Your task to perform on an android device: uninstall "Google Calendar" Image 0: 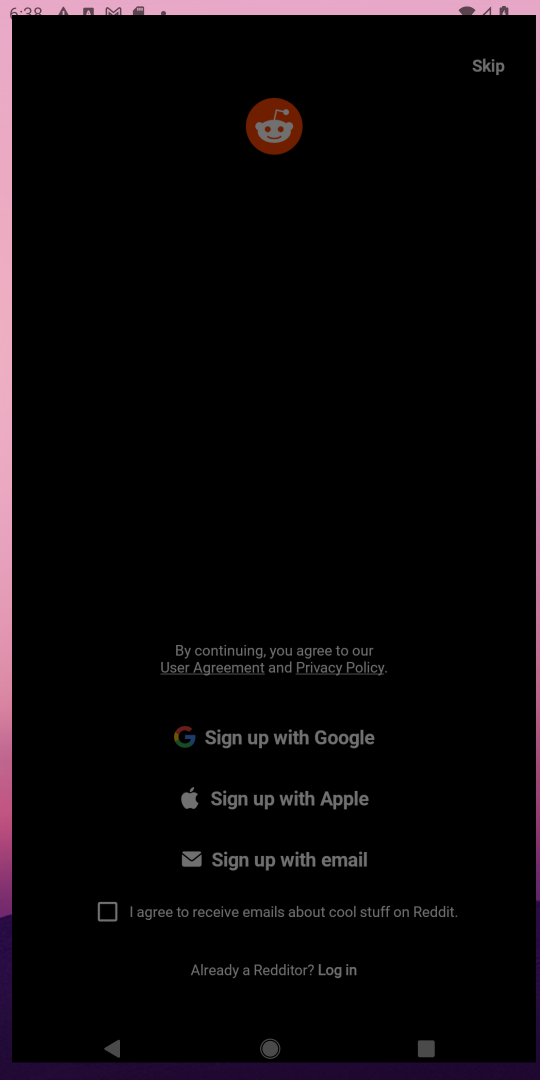
Step 0: press home button
Your task to perform on an android device: uninstall "Google Calendar" Image 1: 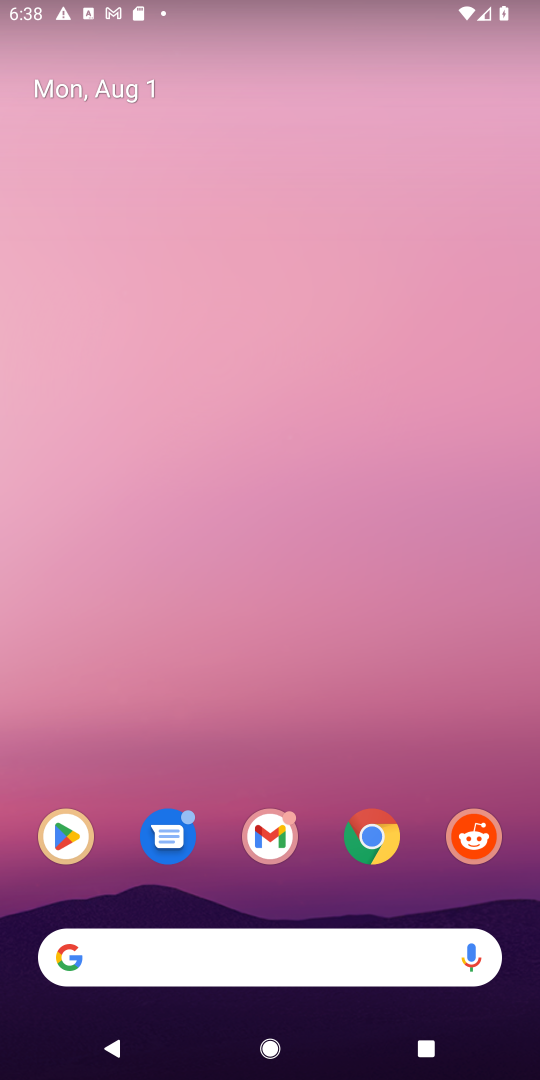
Step 1: click (71, 830)
Your task to perform on an android device: uninstall "Google Calendar" Image 2: 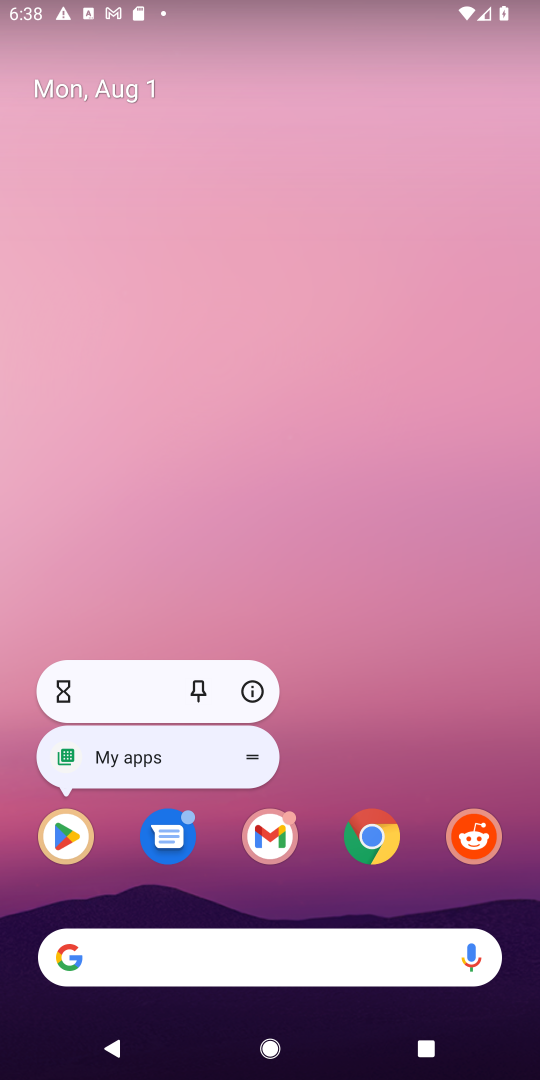
Step 2: click (69, 831)
Your task to perform on an android device: uninstall "Google Calendar" Image 3: 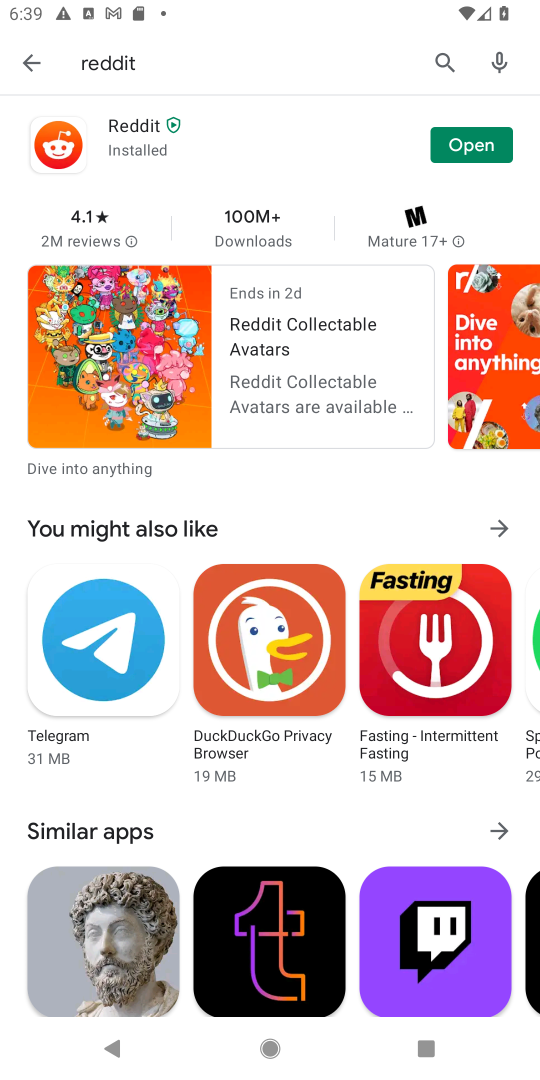
Step 3: click (450, 63)
Your task to perform on an android device: uninstall "Google Calendar" Image 4: 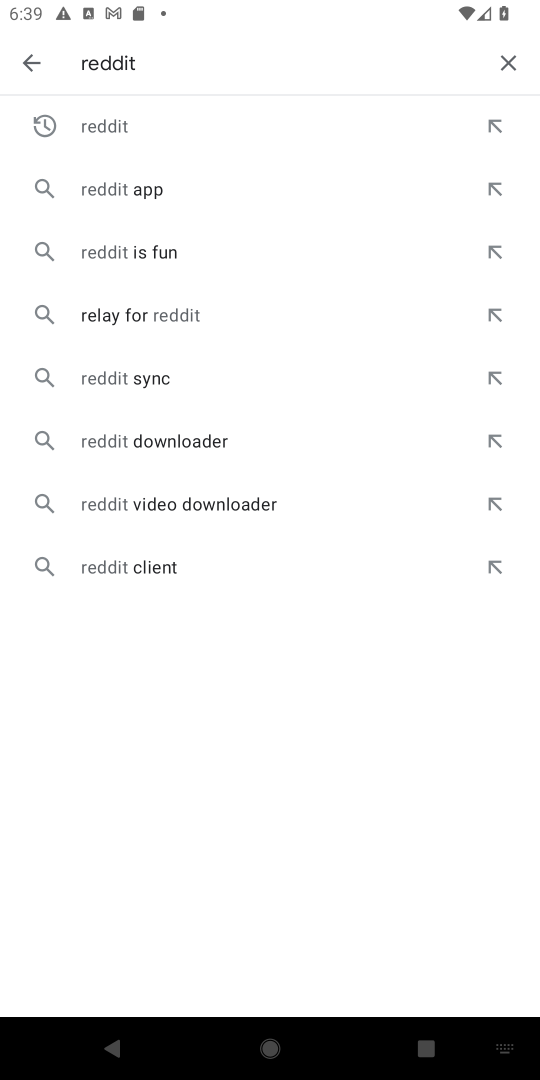
Step 4: click (508, 58)
Your task to perform on an android device: uninstall "Google Calendar" Image 5: 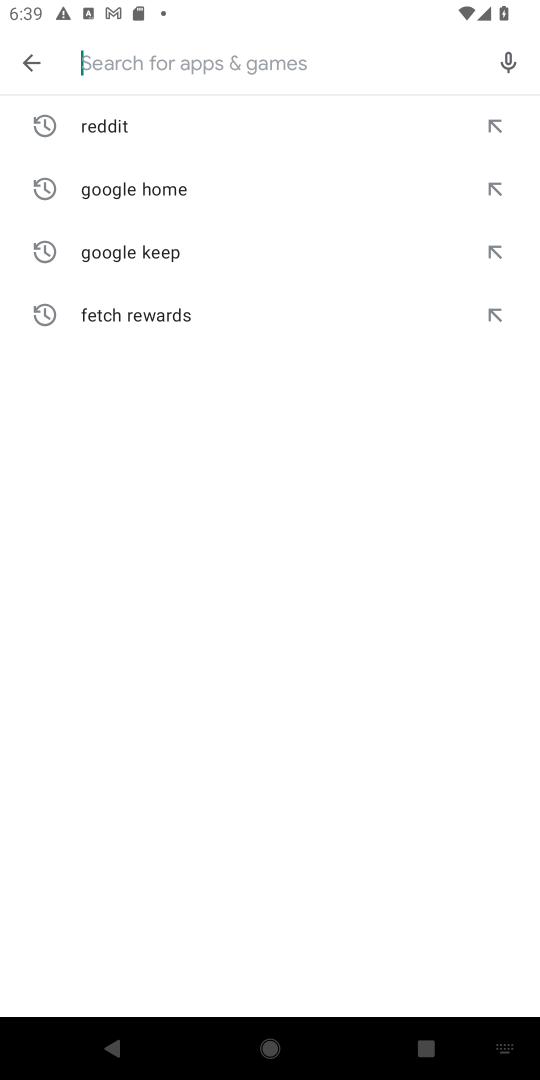
Step 5: type "Google Calendar"
Your task to perform on an android device: uninstall "Google Calendar" Image 6: 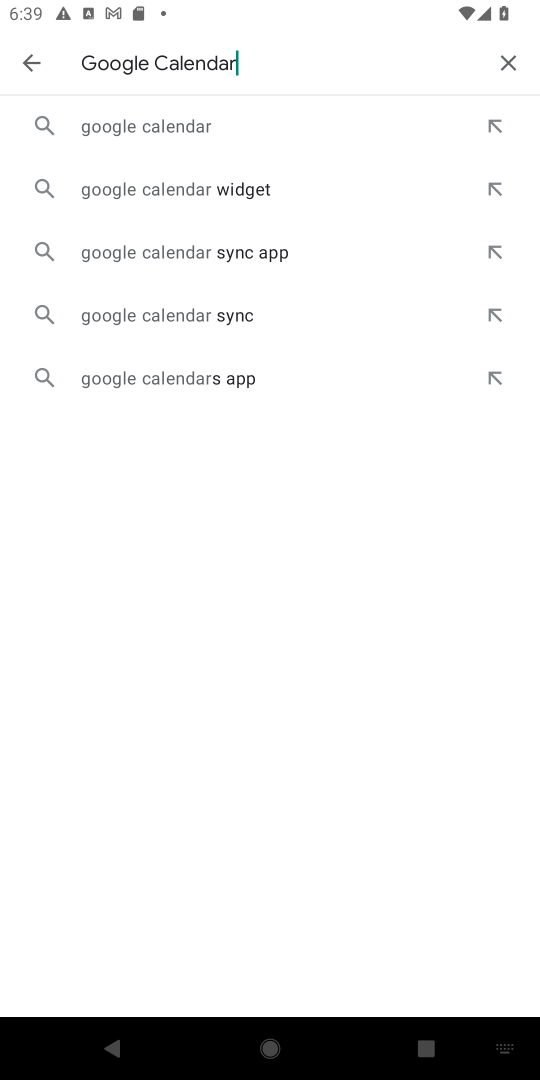
Step 6: click (182, 125)
Your task to perform on an android device: uninstall "Google Calendar" Image 7: 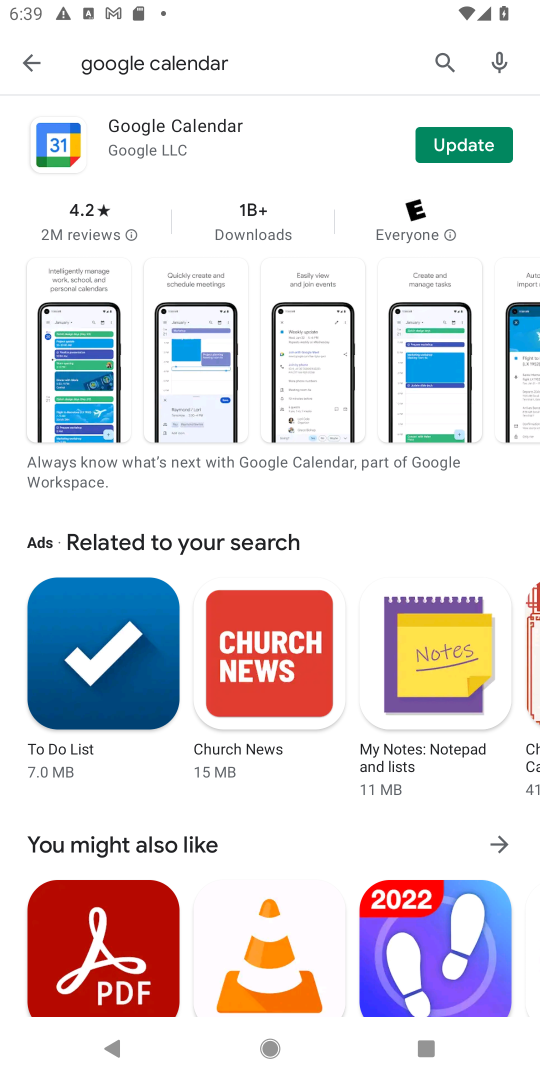
Step 7: task complete